Your task to perform on an android device: toggle wifi Image 0: 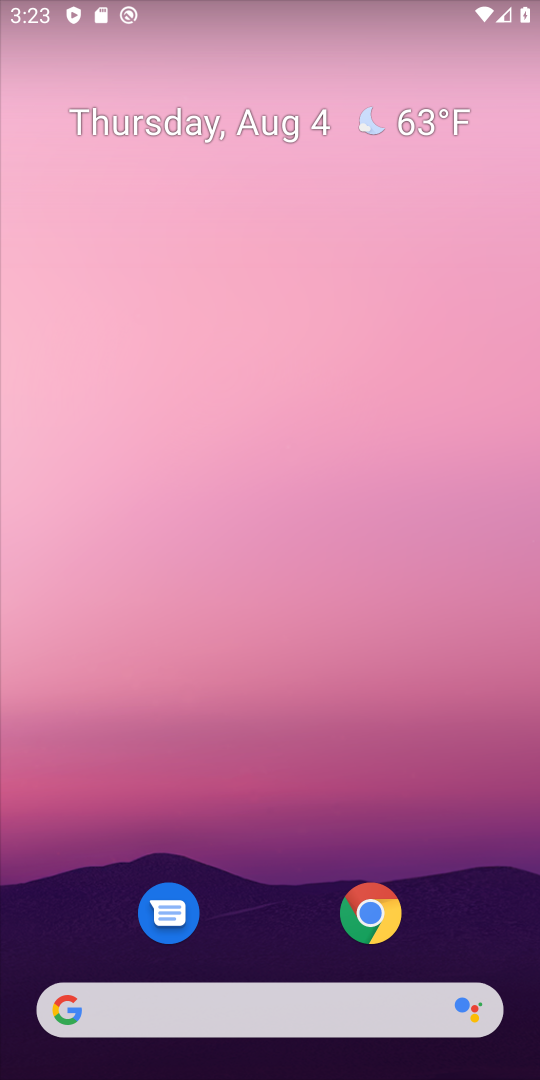
Step 0: drag from (171, 939) to (229, 13)
Your task to perform on an android device: toggle wifi Image 1: 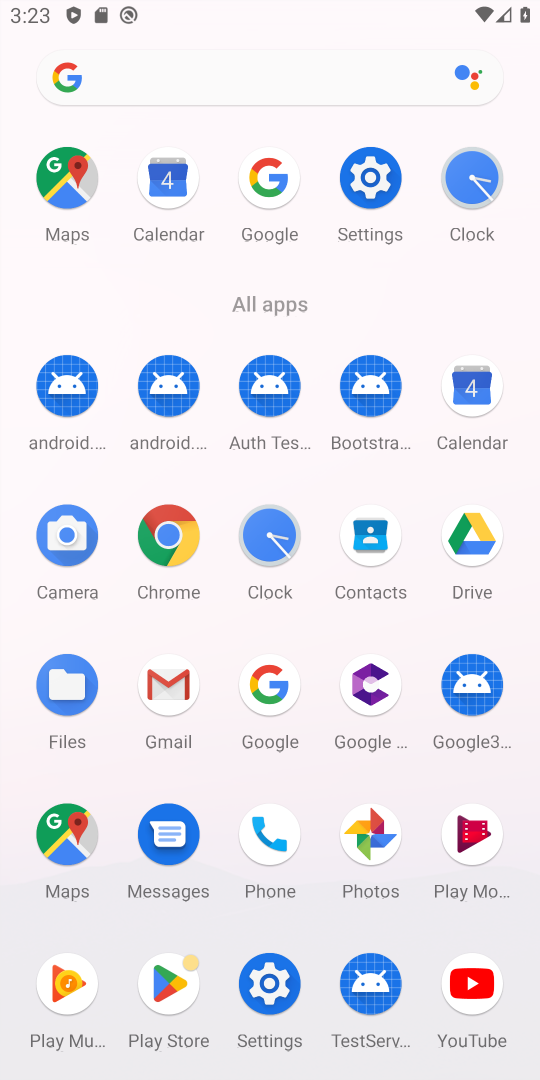
Step 1: click (371, 196)
Your task to perform on an android device: toggle wifi Image 2: 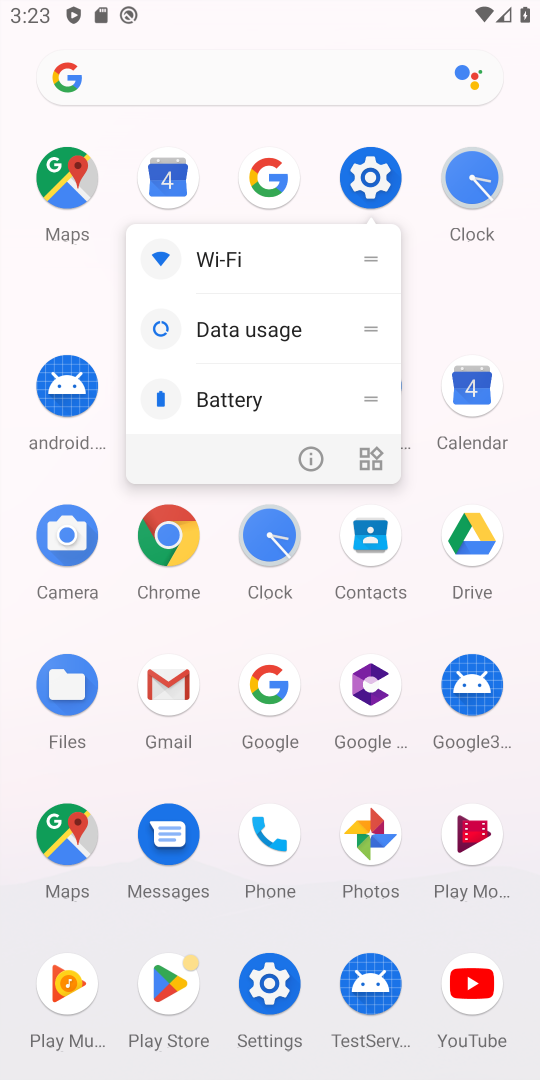
Step 2: click (364, 172)
Your task to perform on an android device: toggle wifi Image 3: 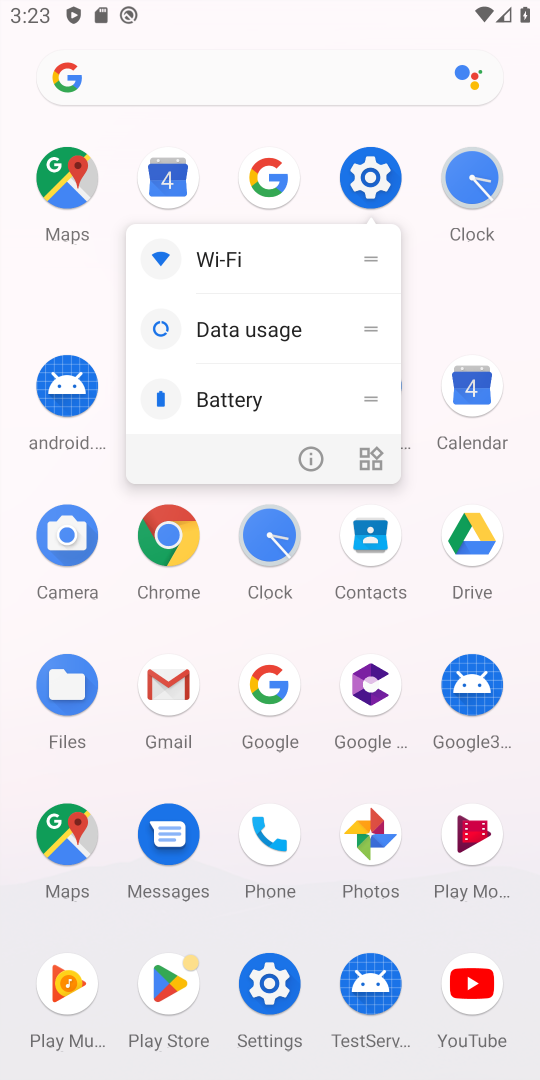
Step 3: click (375, 167)
Your task to perform on an android device: toggle wifi Image 4: 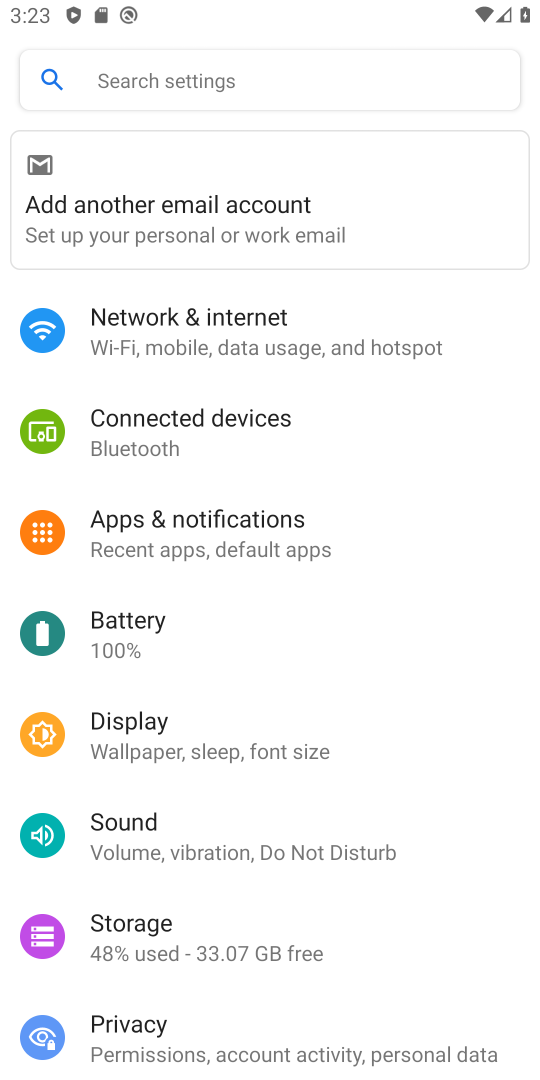
Step 4: click (223, 321)
Your task to perform on an android device: toggle wifi Image 5: 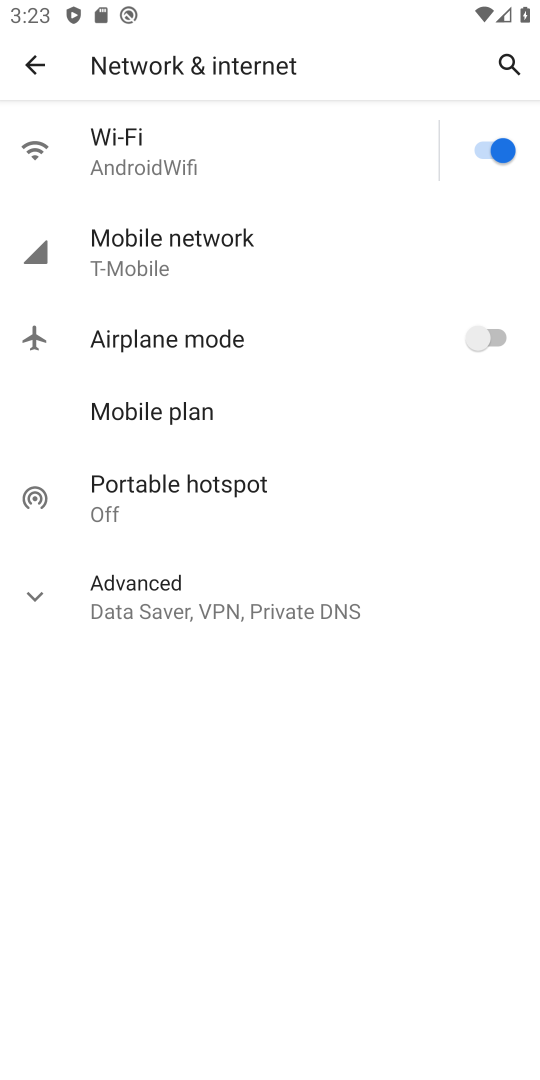
Step 5: click (491, 142)
Your task to perform on an android device: toggle wifi Image 6: 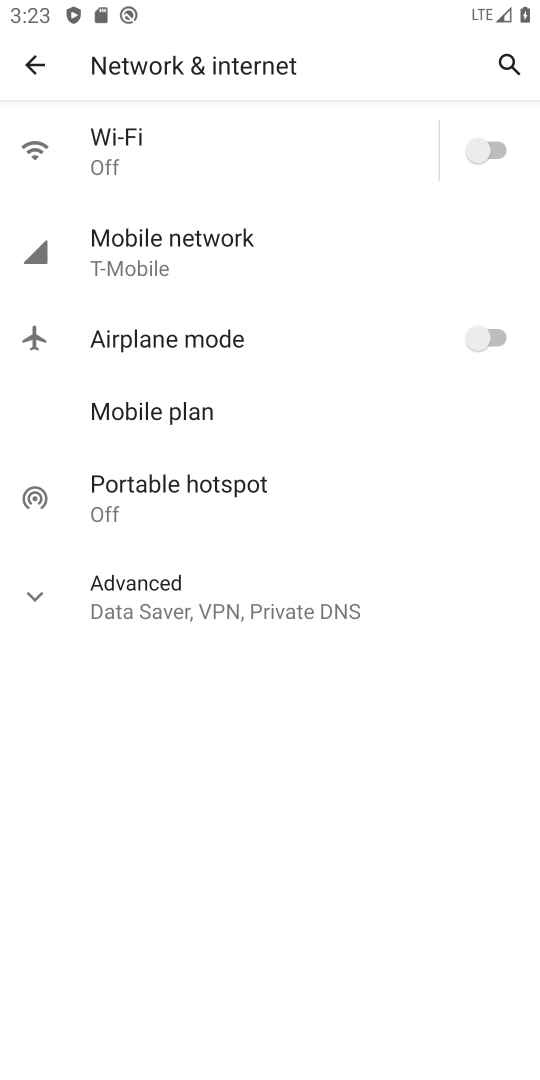
Step 6: task complete